Your task to perform on an android device: What is the recent news? Image 0: 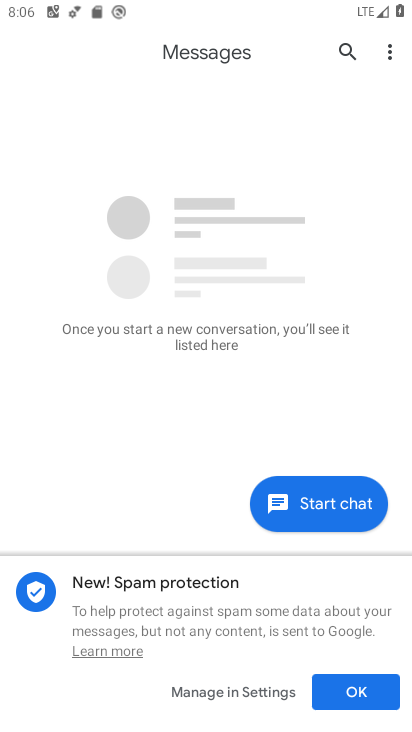
Step 0: press home button
Your task to perform on an android device: What is the recent news? Image 1: 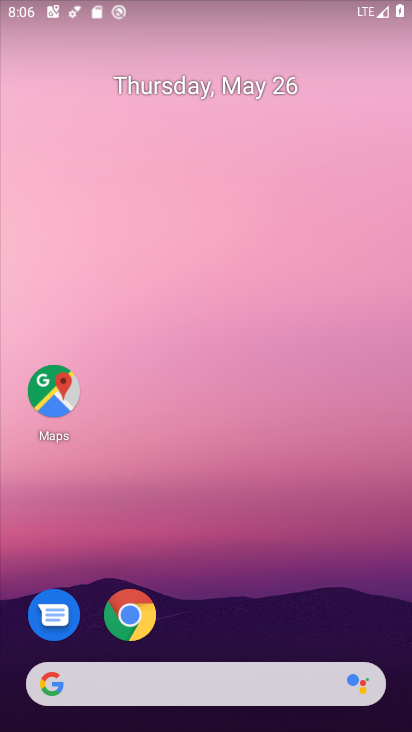
Step 1: click (136, 603)
Your task to perform on an android device: What is the recent news? Image 2: 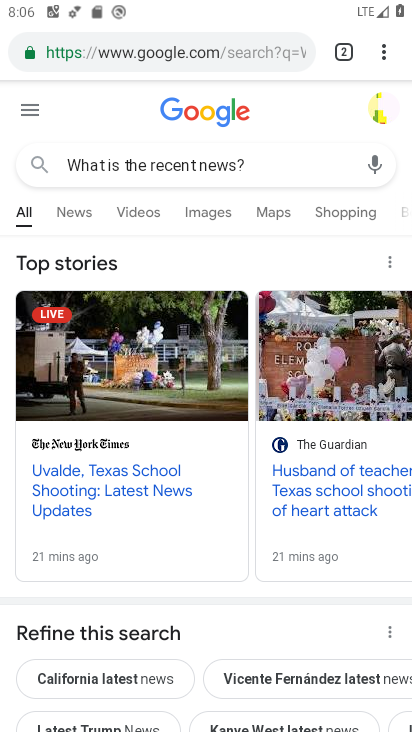
Step 2: click (383, 46)
Your task to perform on an android device: What is the recent news? Image 3: 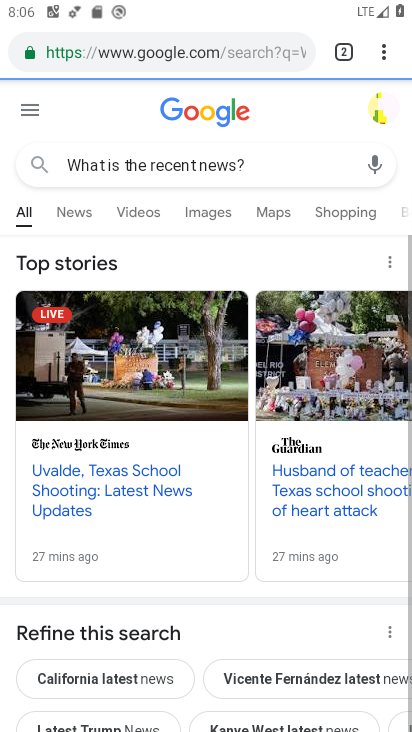
Step 3: click (386, 53)
Your task to perform on an android device: What is the recent news? Image 4: 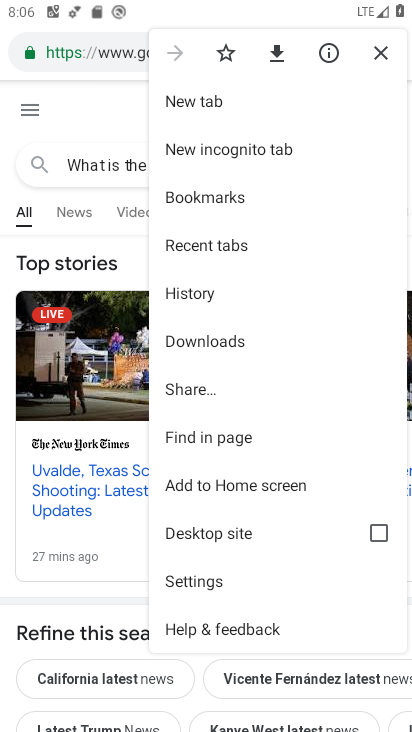
Step 4: click (196, 98)
Your task to perform on an android device: What is the recent news? Image 5: 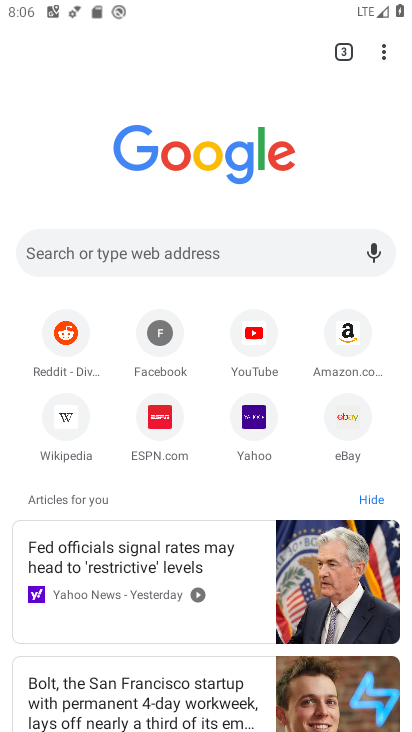
Step 5: click (138, 240)
Your task to perform on an android device: What is the recent news? Image 6: 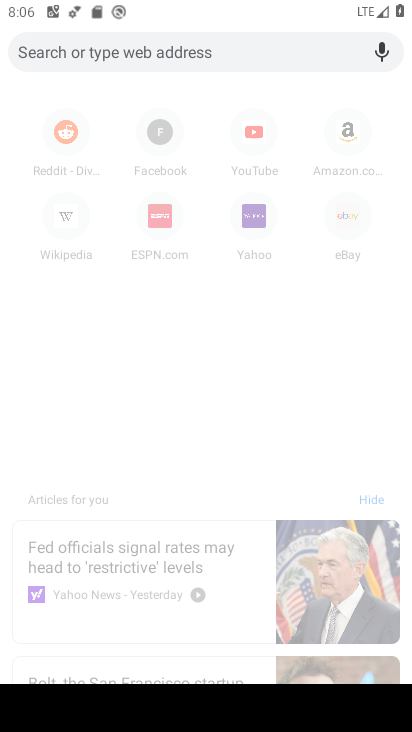
Step 6: type "What is the recent news?"
Your task to perform on an android device: What is the recent news? Image 7: 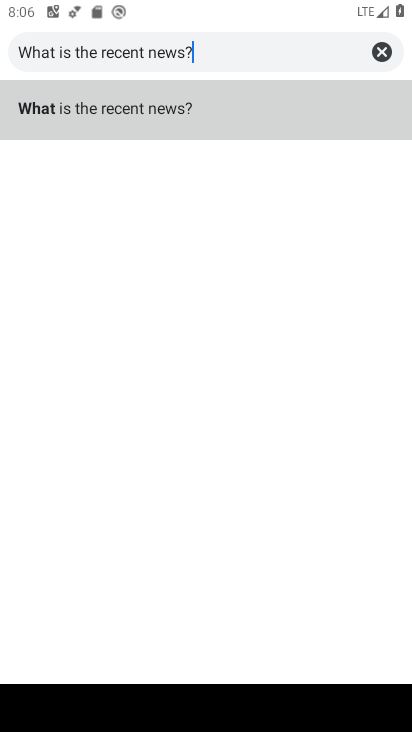
Step 7: click (131, 112)
Your task to perform on an android device: What is the recent news? Image 8: 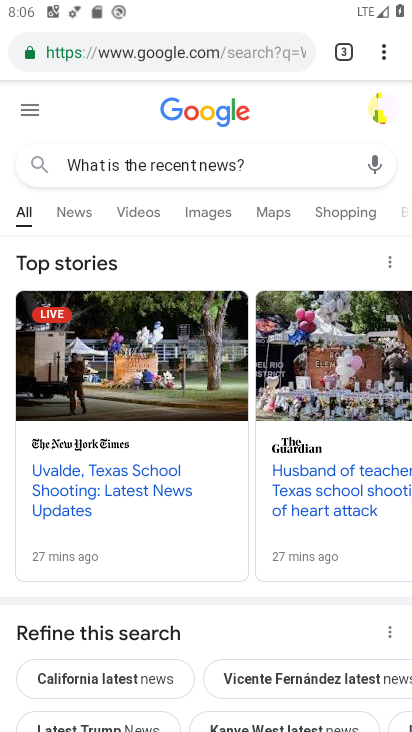
Step 8: task complete